Your task to perform on an android device: Go to network settings Image 0: 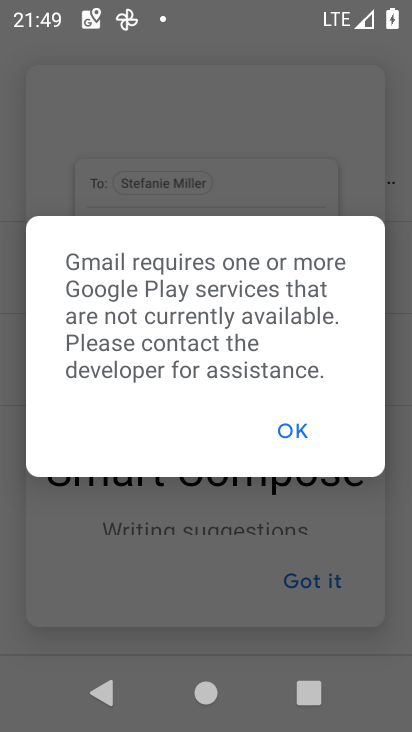
Step 0: press home button
Your task to perform on an android device: Go to network settings Image 1: 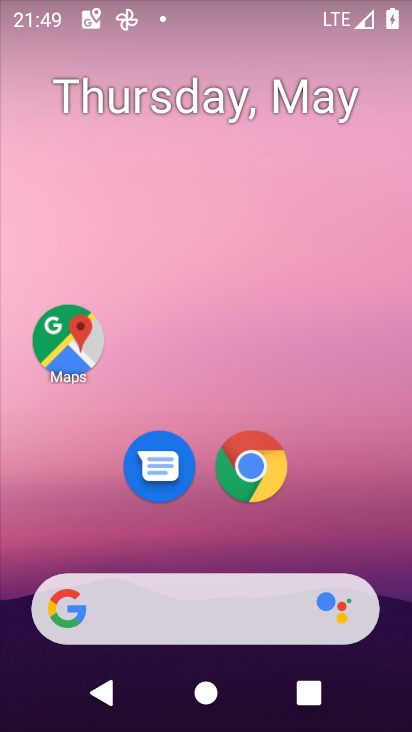
Step 1: drag from (390, 512) to (331, 28)
Your task to perform on an android device: Go to network settings Image 2: 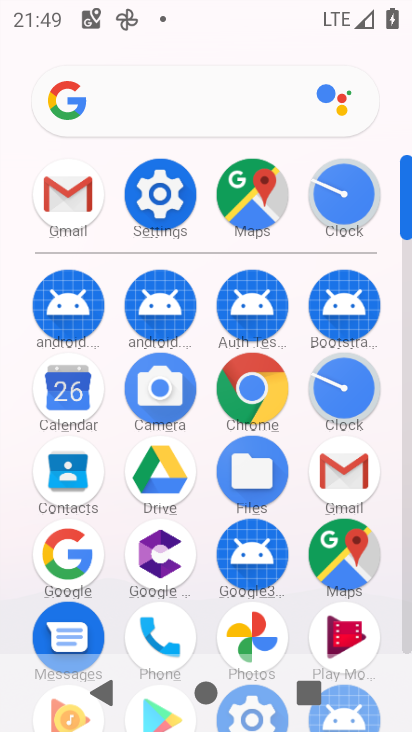
Step 2: click (178, 202)
Your task to perform on an android device: Go to network settings Image 3: 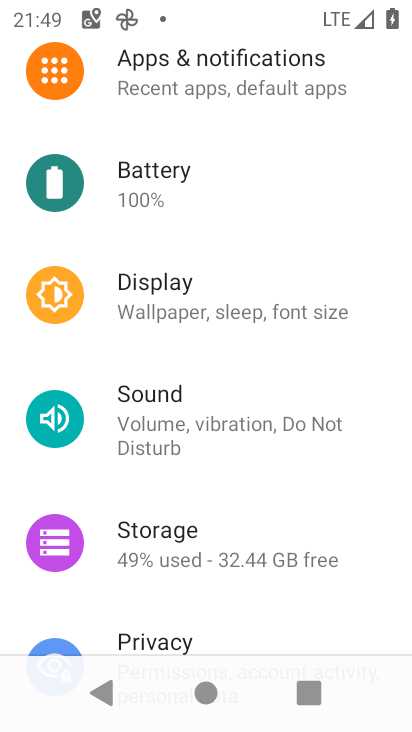
Step 3: drag from (199, 560) to (210, 726)
Your task to perform on an android device: Go to network settings Image 4: 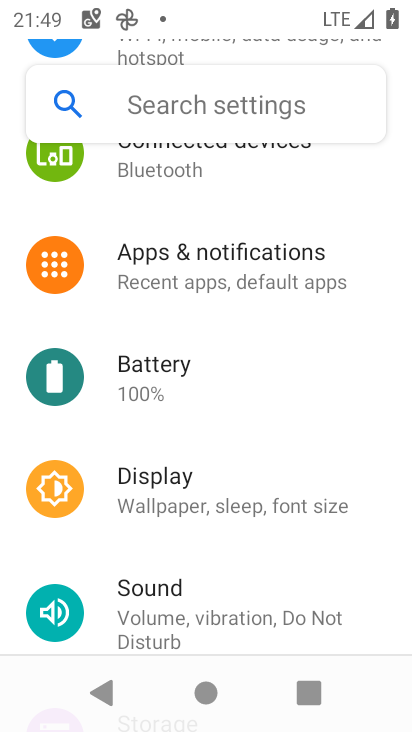
Step 4: drag from (238, 220) to (216, 658)
Your task to perform on an android device: Go to network settings Image 5: 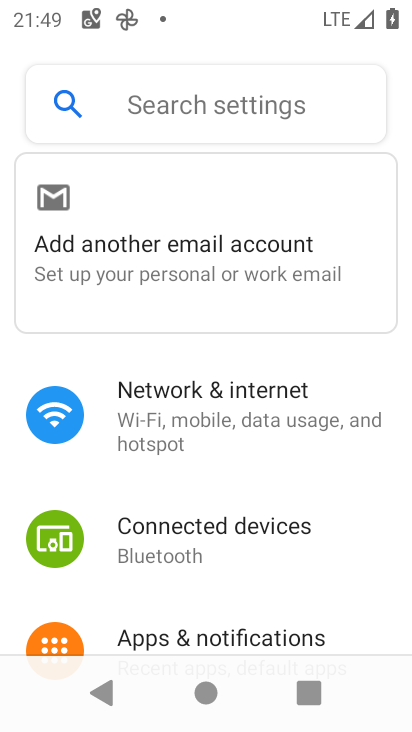
Step 5: click (215, 399)
Your task to perform on an android device: Go to network settings Image 6: 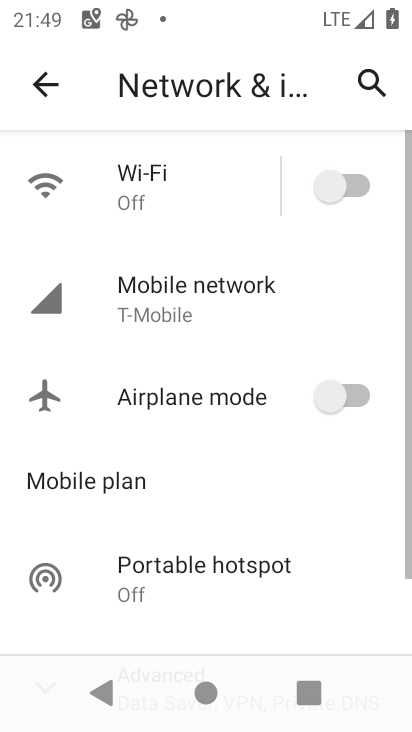
Step 6: task complete